Your task to perform on an android device: Go to privacy settings Image 0: 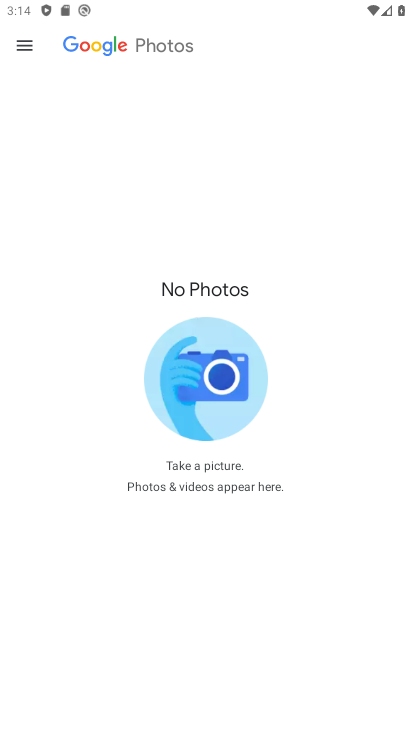
Step 0: press home button
Your task to perform on an android device: Go to privacy settings Image 1: 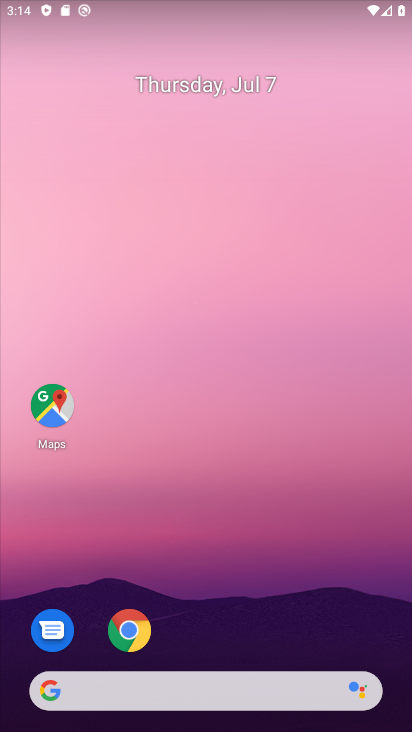
Step 1: drag from (334, 598) to (335, 185)
Your task to perform on an android device: Go to privacy settings Image 2: 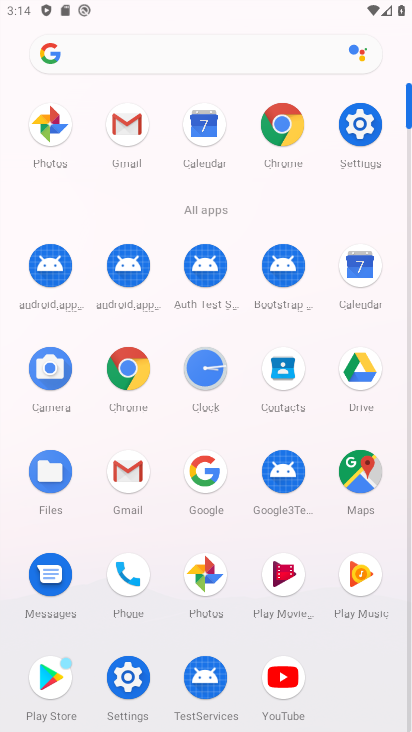
Step 2: click (364, 139)
Your task to perform on an android device: Go to privacy settings Image 3: 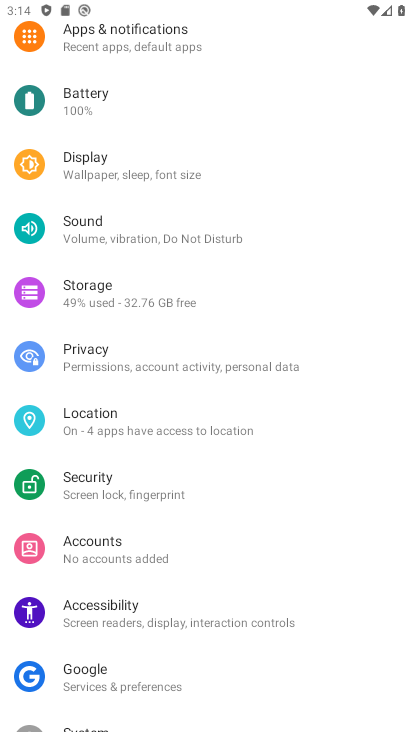
Step 3: drag from (359, 149) to (353, 259)
Your task to perform on an android device: Go to privacy settings Image 4: 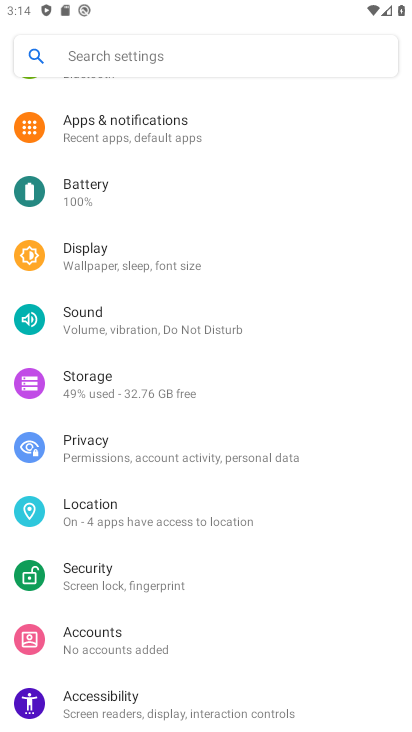
Step 4: drag from (335, 147) to (338, 277)
Your task to perform on an android device: Go to privacy settings Image 5: 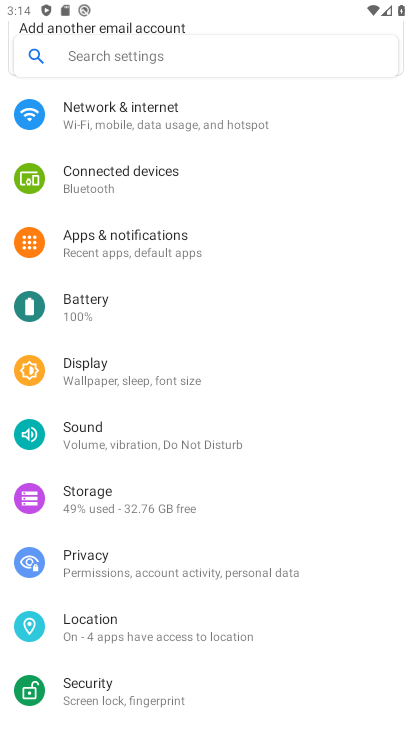
Step 5: drag from (338, 142) to (343, 282)
Your task to perform on an android device: Go to privacy settings Image 6: 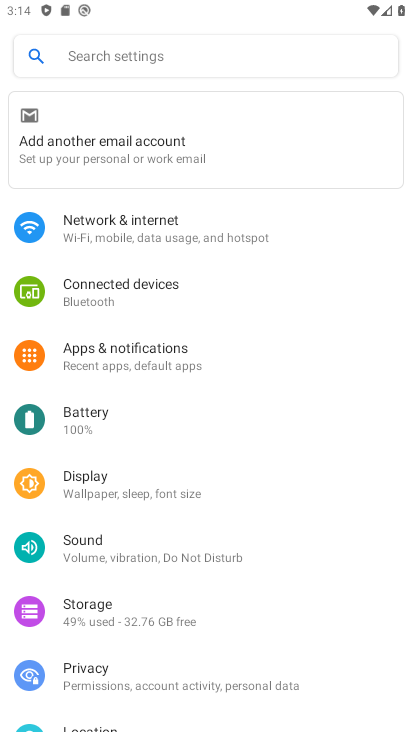
Step 6: drag from (335, 326) to (335, 243)
Your task to perform on an android device: Go to privacy settings Image 7: 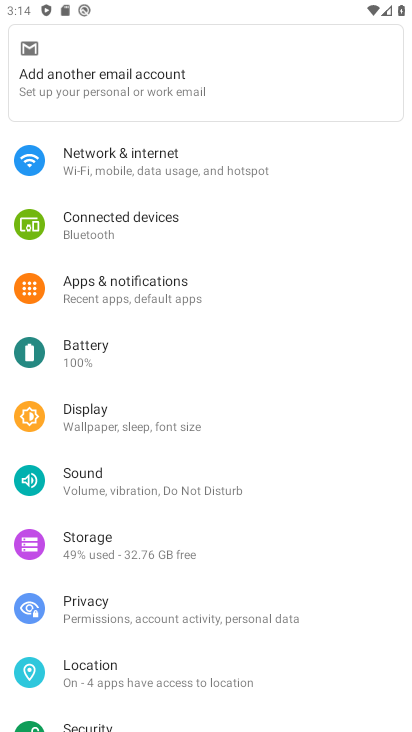
Step 7: drag from (333, 356) to (336, 260)
Your task to perform on an android device: Go to privacy settings Image 8: 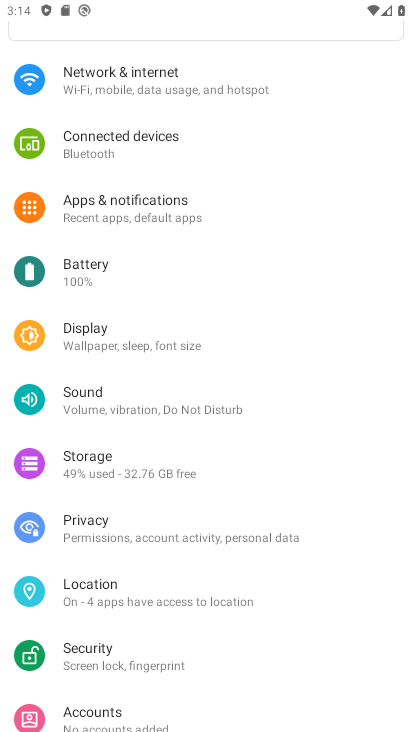
Step 8: drag from (329, 369) to (334, 277)
Your task to perform on an android device: Go to privacy settings Image 9: 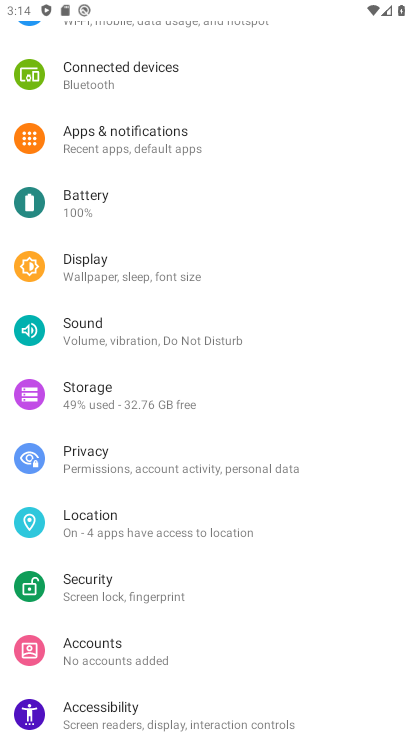
Step 9: drag from (330, 388) to (337, 287)
Your task to perform on an android device: Go to privacy settings Image 10: 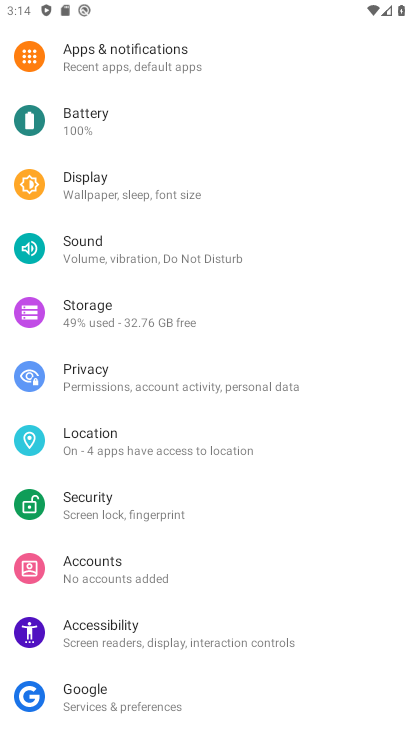
Step 10: drag from (336, 387) to (336, 315)
Your task to perform on an android device: Go to privacy settings Image 11: 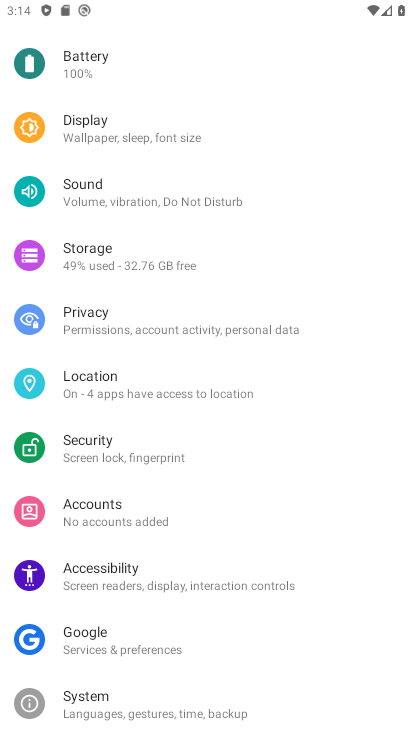
Step 11: drag from (338, 386) to (344, 292)
Your task to perform on an android device: Go to privacy settings Image 12: 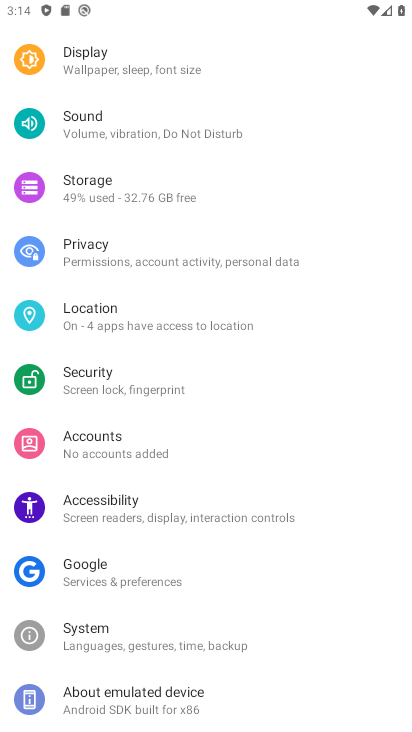
Step 12: drag from (344, 397) to (351, 280)
Your task to perform on an android device: Go to privacy settings Image 13: 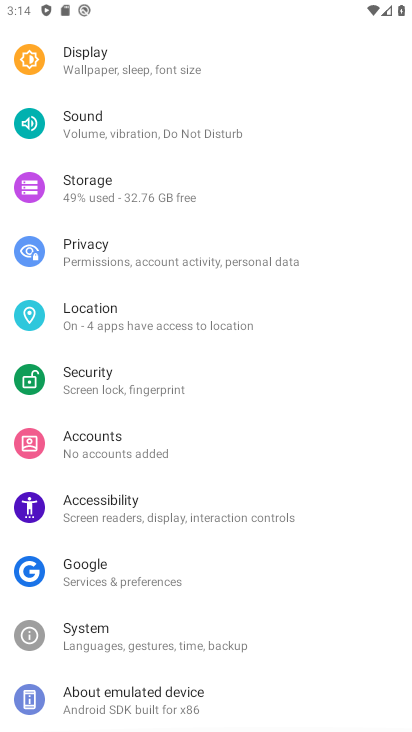
Step 13: click (328, 256)
Your task to perform on an android device: Go to privacy settings Image 14: 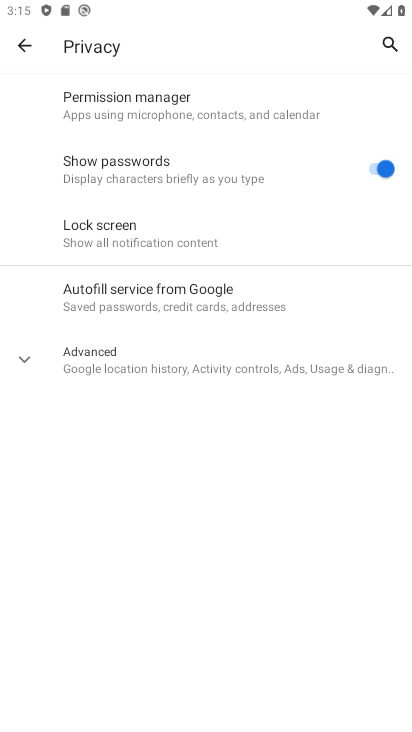
Step 14: task complete